Your task to perform on an android device: turn off improve location accuracy Image 0: 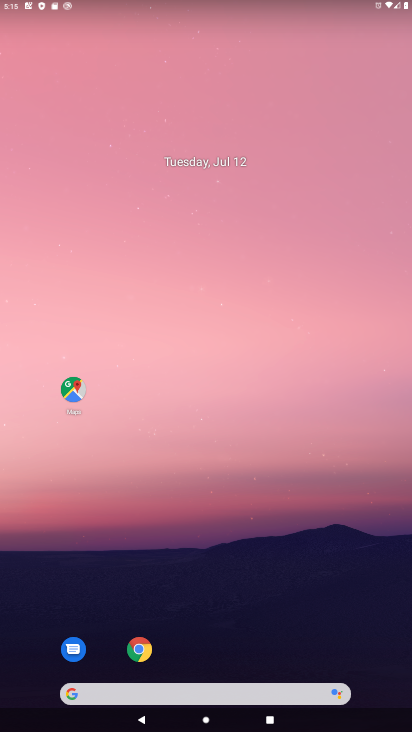
Step 0: drag from (208, 695) to (217, 339)
Your task to perform on an android device: turn off improve location accuracy Image 1: 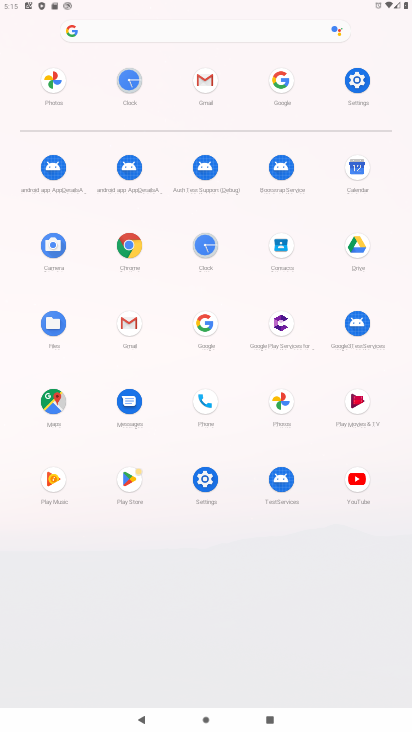
Step 1: click (205, 479)
Your task to perform on an android device: turn off improve location accuracy Image 2: 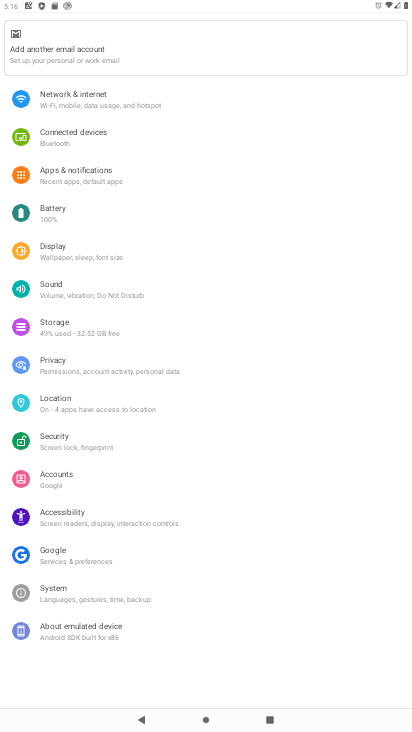
Step 2: click (56, 403)
Your task to perform on an android device: turn off improve location accuracy Image 3: 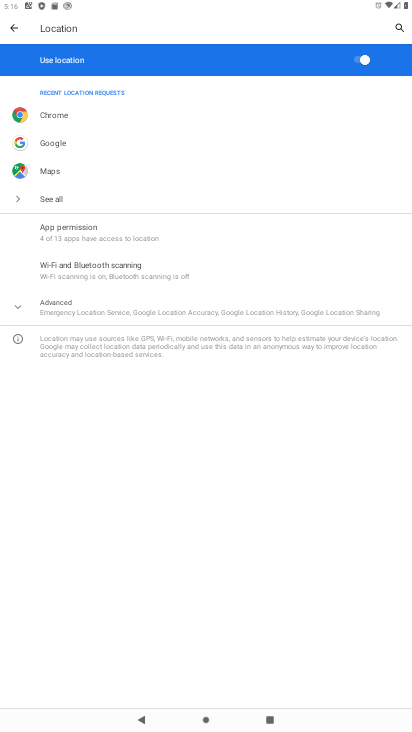
Step 3: click (110, 310)
Your task to perform on an android device: turn off improve location accuracy Image 4: 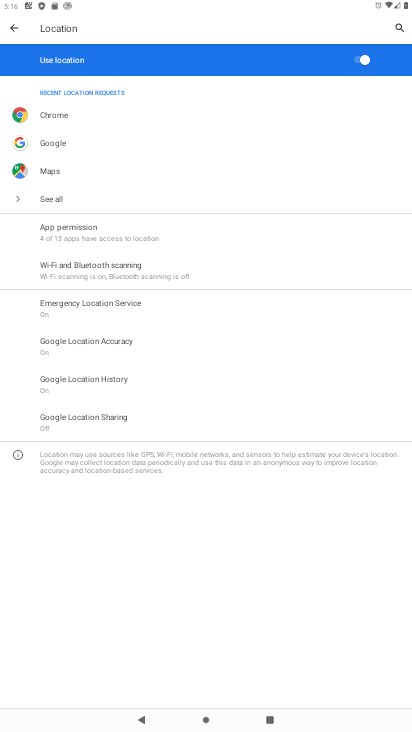
Step 4: click (99, 344)
Your task to perform on an android device: turn off improve location accuracy Image 5: 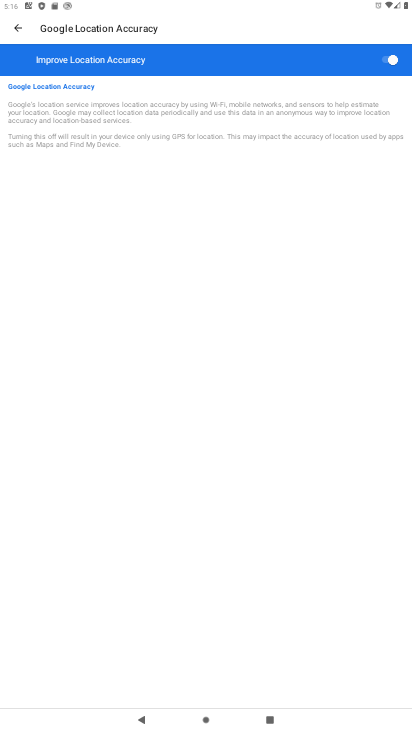
Step 5: click (390, 62)
Your task to perform on an android device: turn off improve location accuracy Image 6: 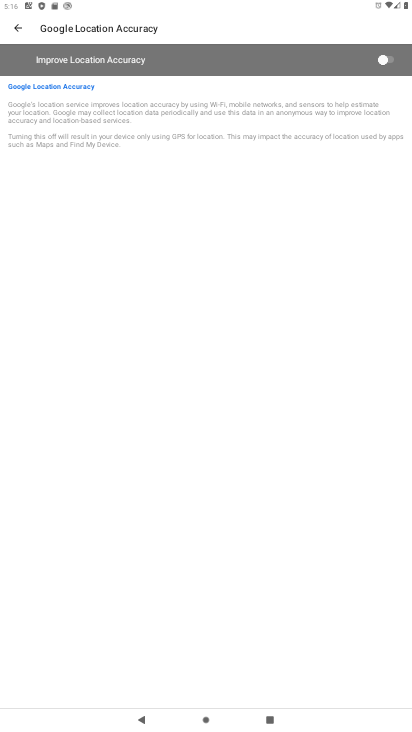
Step 6: task complete